Your task to perform on an android device: Open display settings Image 0: 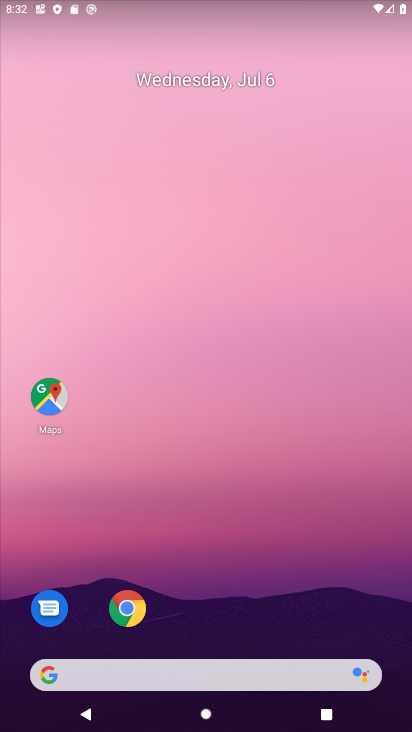
Step 0: drag from (201, 623) to (269, 317)
Your task to perform on an android device: Open display settings Image 1: 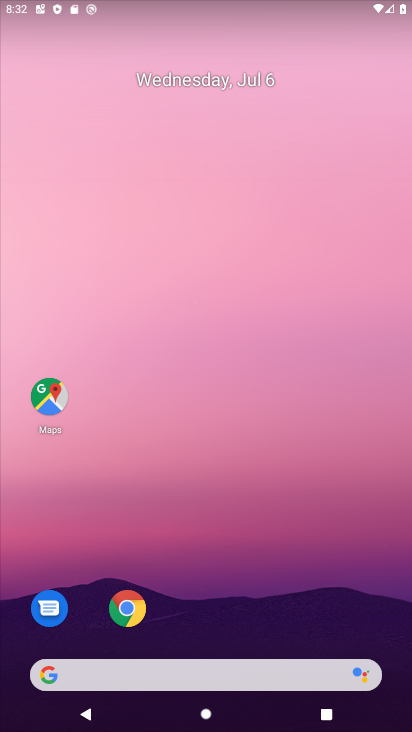
Step 1: drag from (183, 662) to (209, 227)
Your task to perform on an android device: Open display settings Image 2: 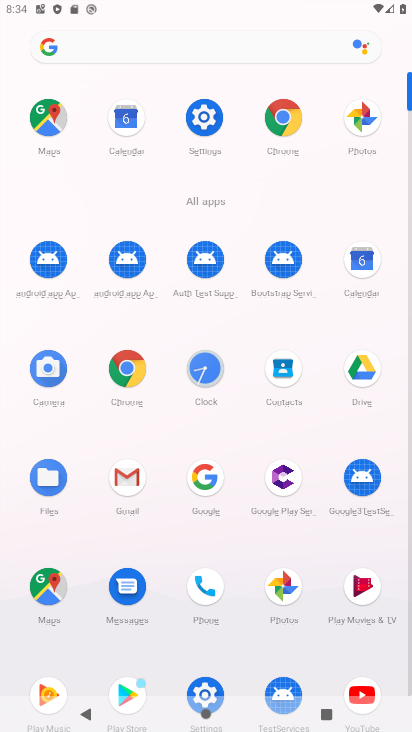
Step 2: click (210, 113)
Your task to perform on an android device: Open display settings Image 3: 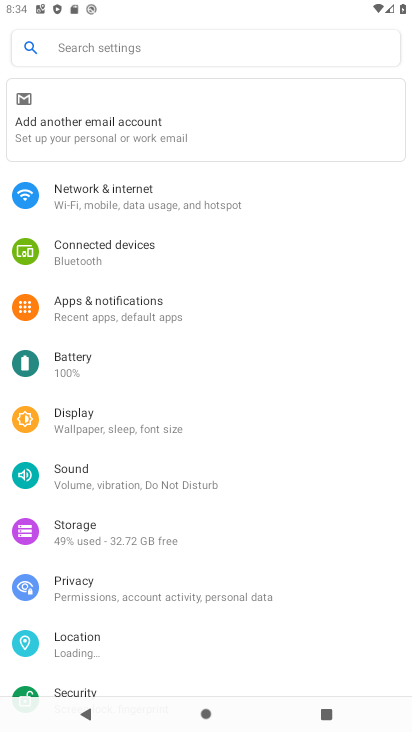
Step 3: click (94, 426)
Your task to perform on an android device: Open display settings Image 4: 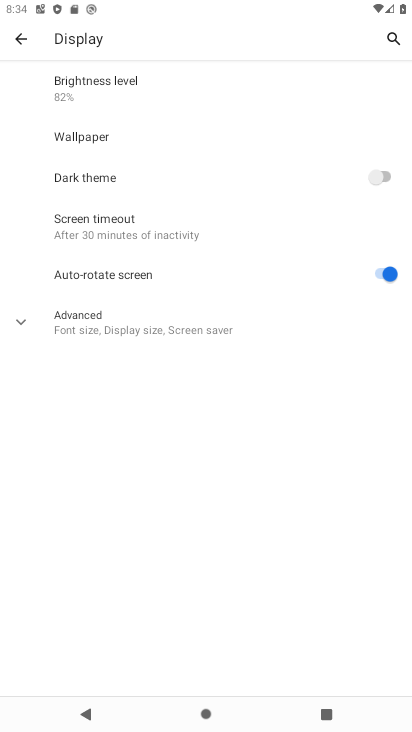
Step 4: click (63, 319)
Your task to perform on an android device: Open display settings Image 5: 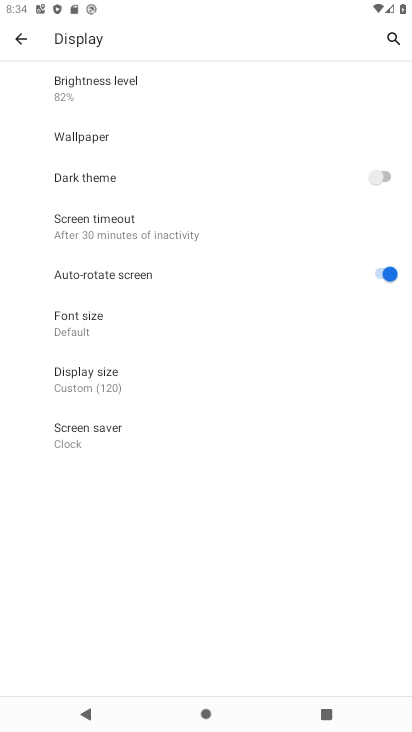
Step 5: task complete